Your task to perform on an android device: Go to Maps Image 0: 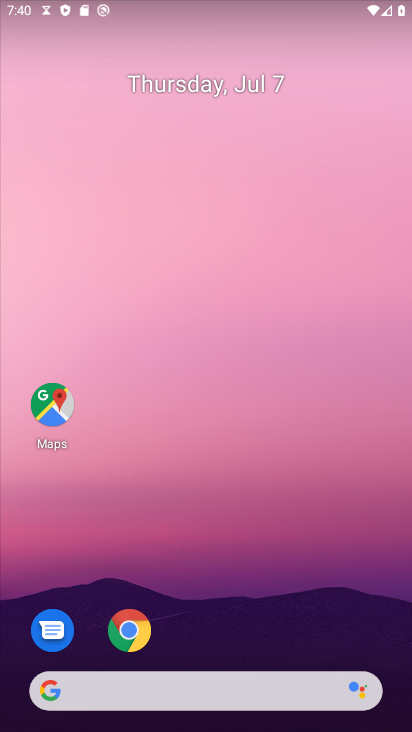
Step 0: click (71, 409)
Your task to perform on an android device: Go to Maps Image 1: 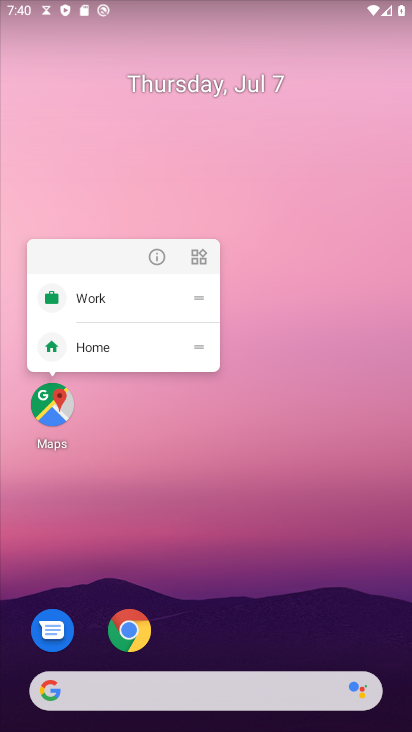
Step 1: click (45, 395)
Your task to perform on an android device: Go to Maps Image 2: 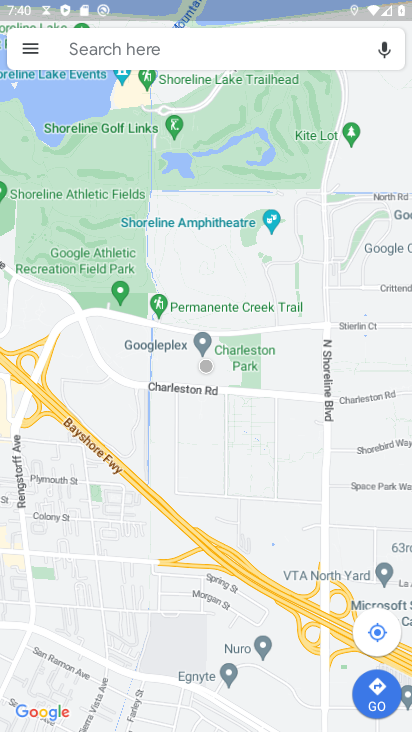
Step 2: task complete